Your task to perform on an android device: turn off sleep mode Image 0: 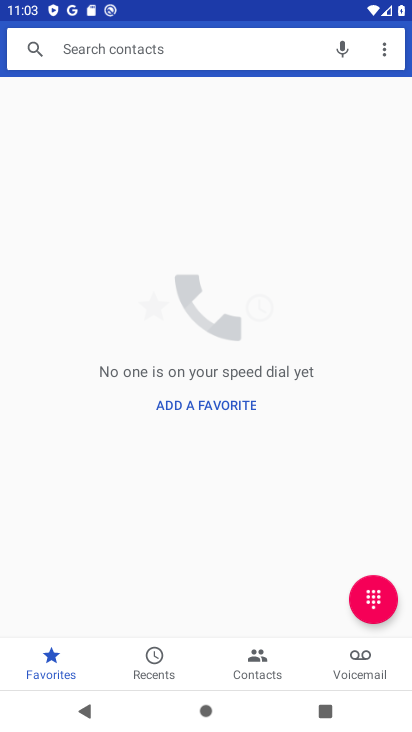
Step 0: press home button
Your task to perform on an android device: turn off sleep mode Image 1: 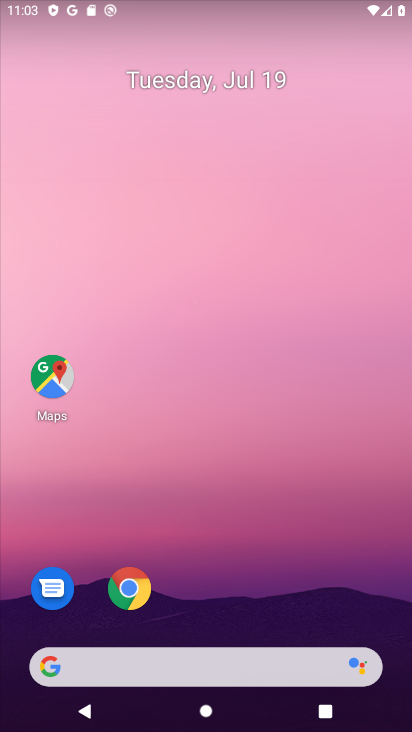
Step 1: drag from (234, 692) to (224, 253)
Your task to perform on an android device: turn off sleep mode Image 2: 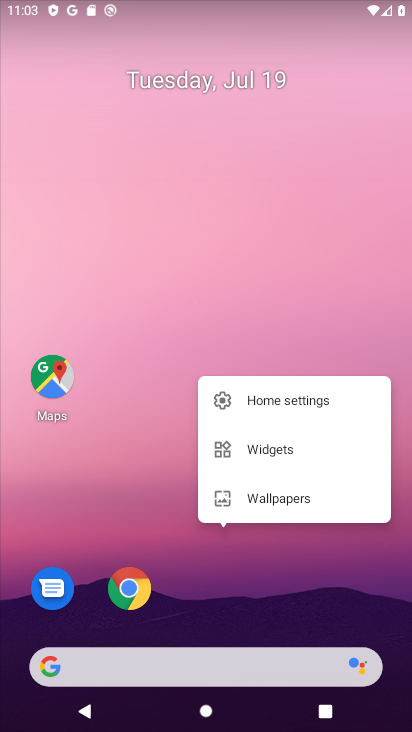
Step 2: click (247, 554)
Your task to perform on an android device: turn off sleep mode Image 3: 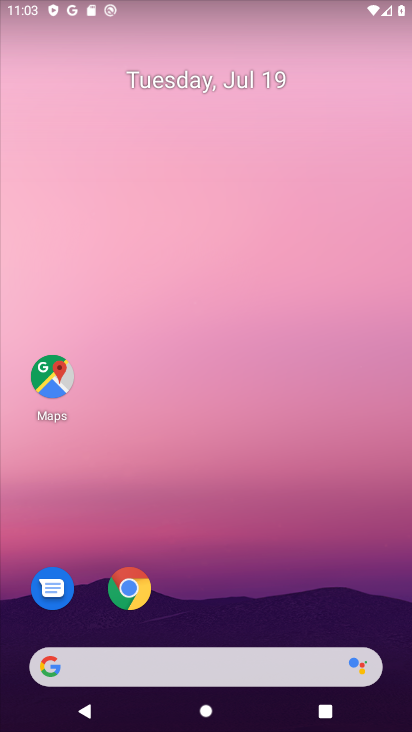
Step 3: drag from (248, 706) to (248, 178)
Your task to perform on an android device: turn off sleep mode Image 4: 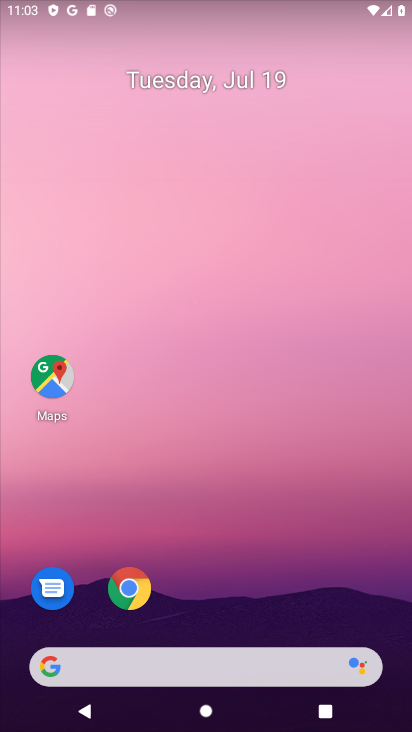
Step 4: drag from (242, 699) to (216, 96)
Your task to perform on an android device: turn off sleep mode Image 5: 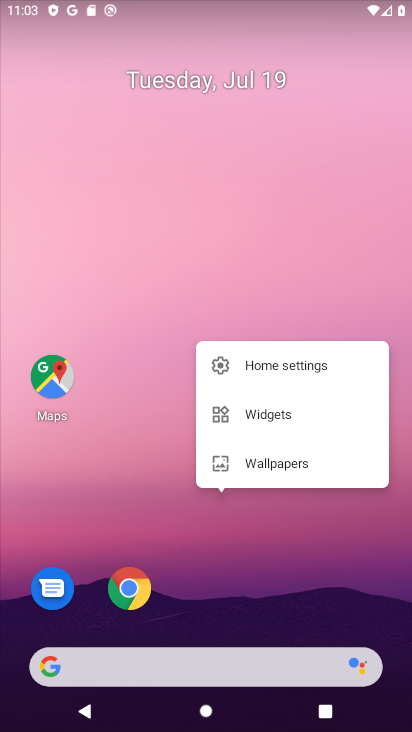
Step 5: click (288, 577)
Your task to perform on an android device: turn off sleep mode Image 6: 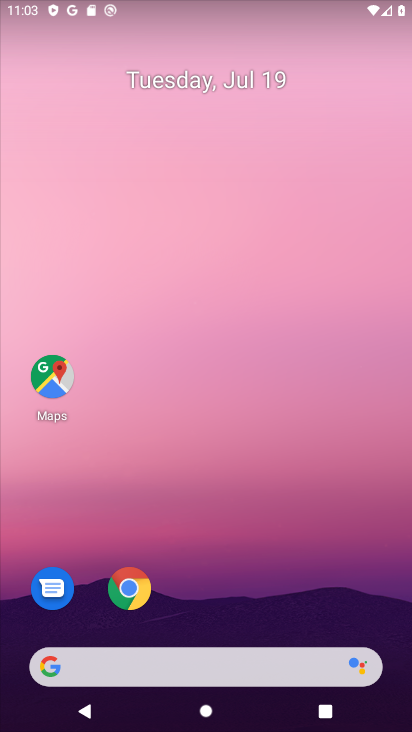
Step 6: drag from (237, 632) to (240, 107)
Your task to perform on an android device: turn off sleep mode Image 7: 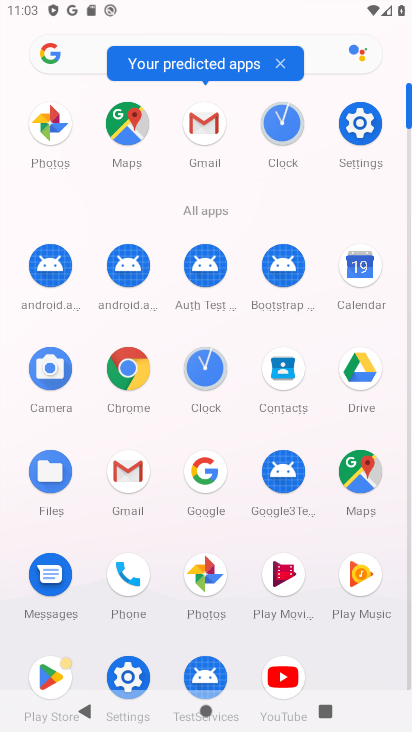
Step 7: click (364, 126)
Your task to perform on an android device: turn off sleep mode Image 8: 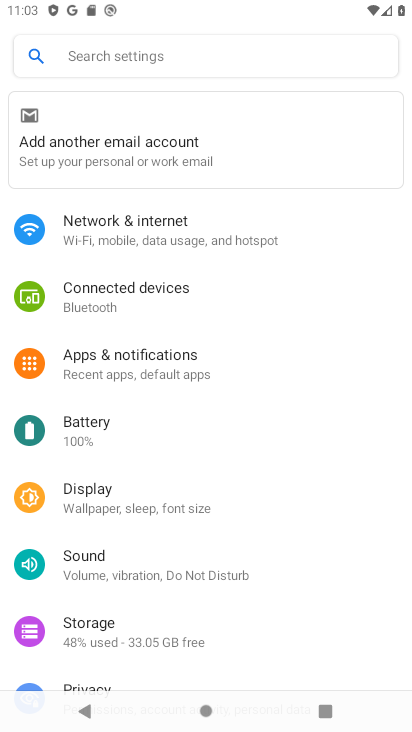
Step 8: click (168, 508)
Your task to perform on an android device: turn off sleep mode Image 9: 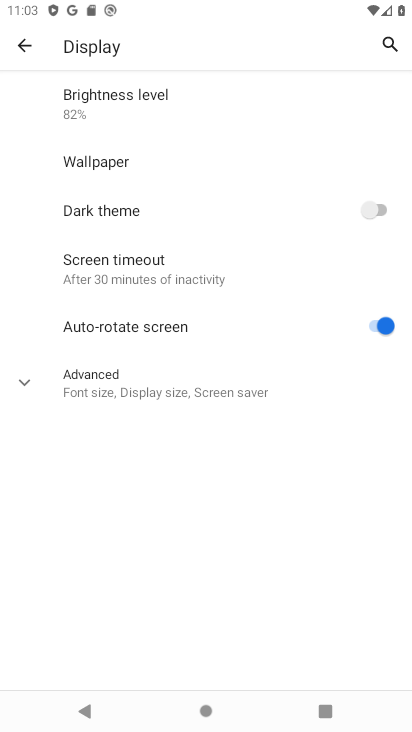
Step 9: task complete